Your task to perform on an android device: Open settings Image 0: 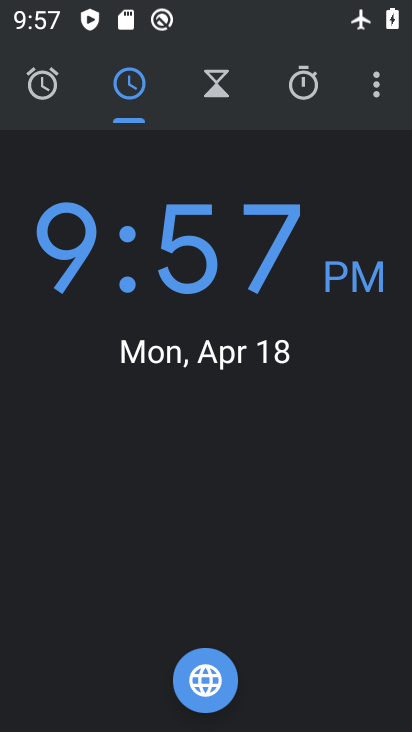
Step 0: press home button
Your task to perform on an android device: Open settings Image 1: 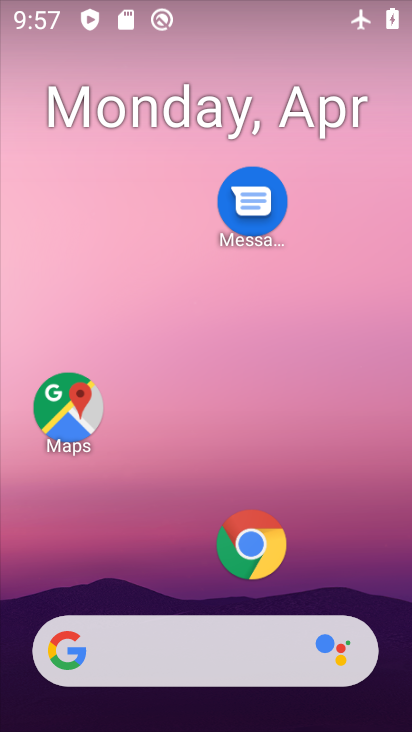
Step 1: drag from (199, 585) to (226, 85)
Your task to perform on an android device: Open settings Image 2: 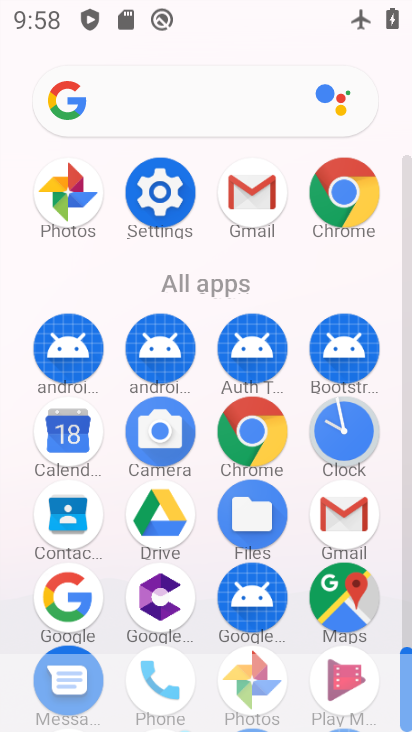
Step 2: click (156, 189)
Your task to perform on an android device: Open settings Image 3: 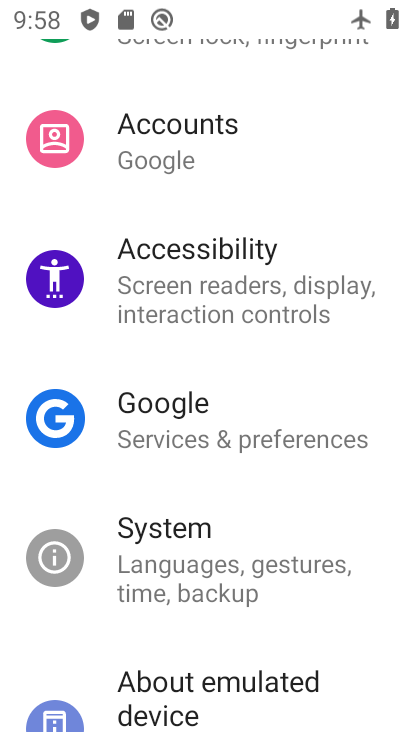
Step 3: task complete